Your task to perform on an android device: Open sound settings Image 0: 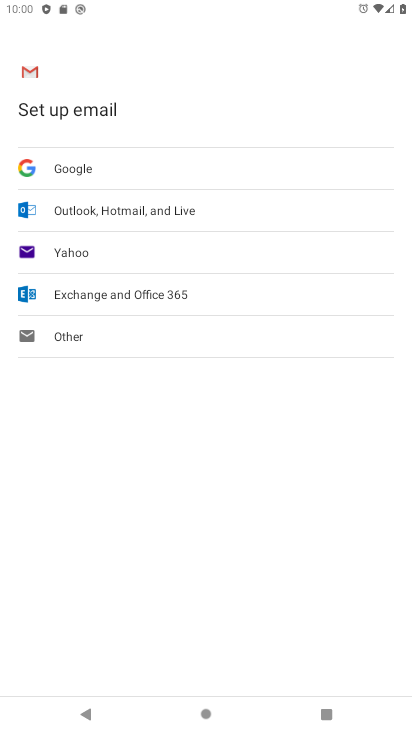
Step 0: press home button
Your task to perform on an android device: Open sound settings Image 1: 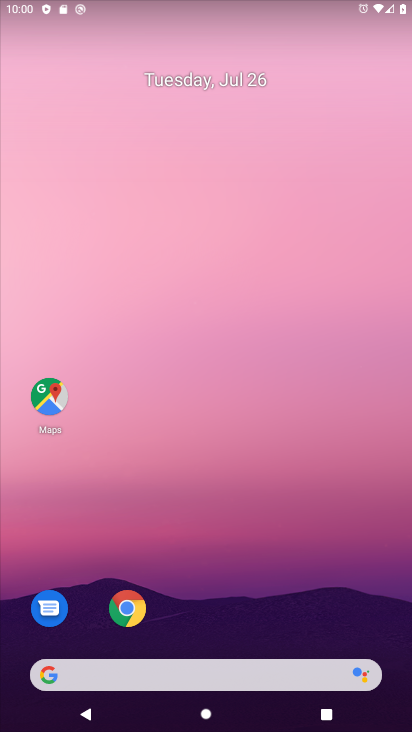
Step 1: drag from (242, 720) to (242, 25)
Your task to perform on an android device: Open sound settings Image 2: 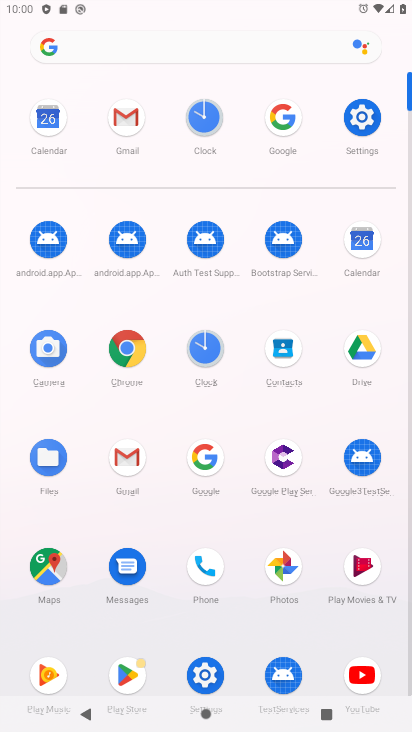
Step 2: click (364, 114)
Your task to perform on an android device: Open sound settings Image 3: 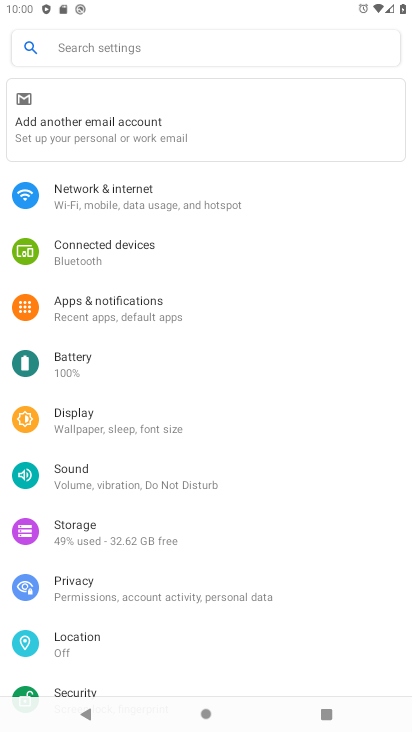
Step 3: click (77, 477)
Your task to perform on an android device: Open sound settings Image 4: 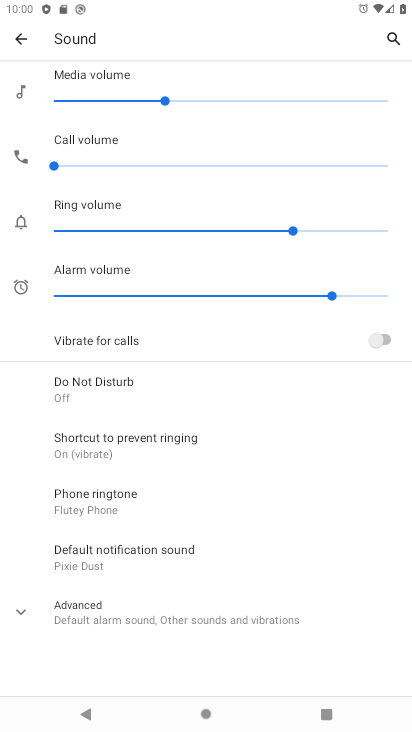
Step 4: task complete